Your task to perform on an android device: create a new album in the google photos Image 0: 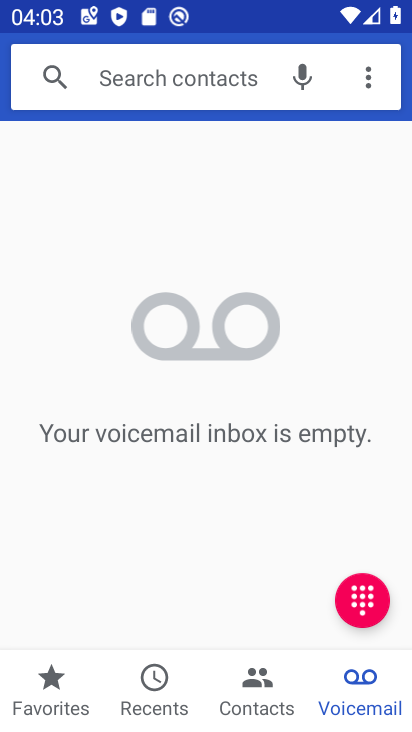
Step 0: press home button
Your task to perform on an android device: create a new album in the google photos Image 1: 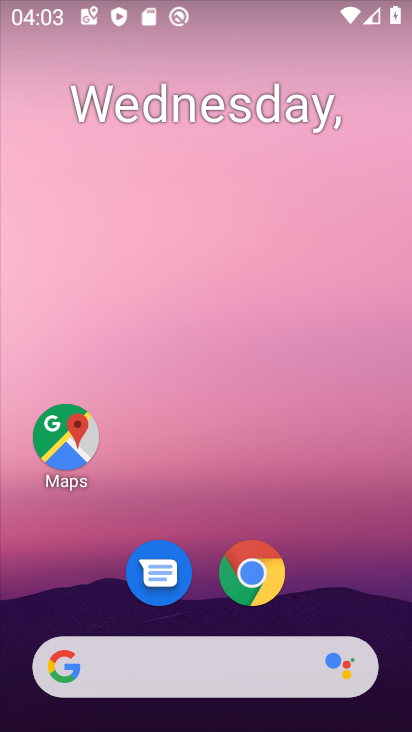
Step 1: drag from (339, 565) to (289, 39)
Your task to perform on an android device: create a new album in the google photos Image 2: 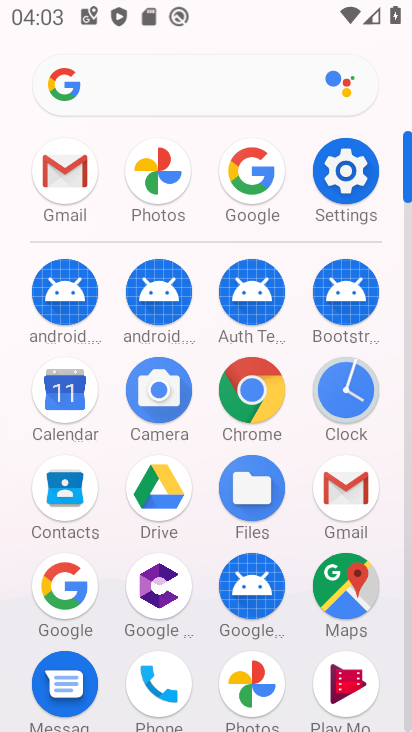
Step 2: click (157, 172)
Your task to perform on an android device: create a new album in the google photos Image 3: 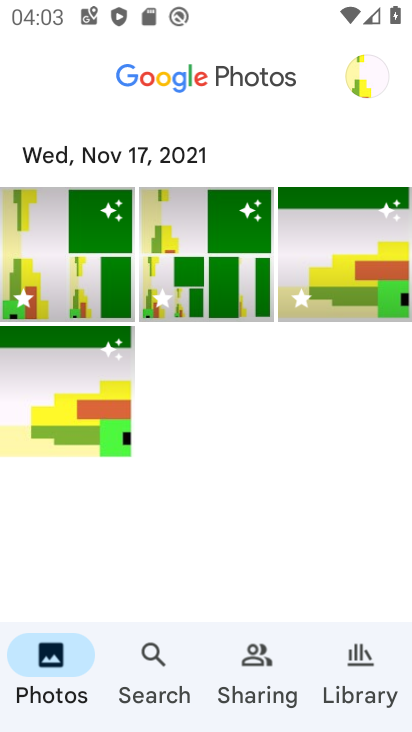
Step 3: click (373, 656)
Your task to perform on an android device: create a new album in the google photos Image 4: 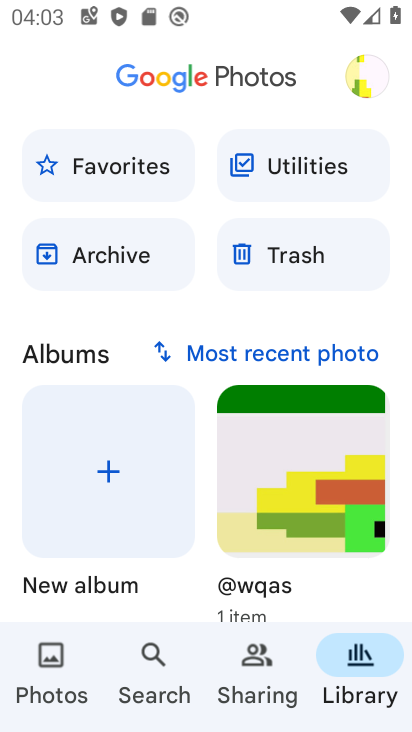
Step 4: click (104, 467)
Your task to perform on an android device: create a new album in the google photos Image 5: 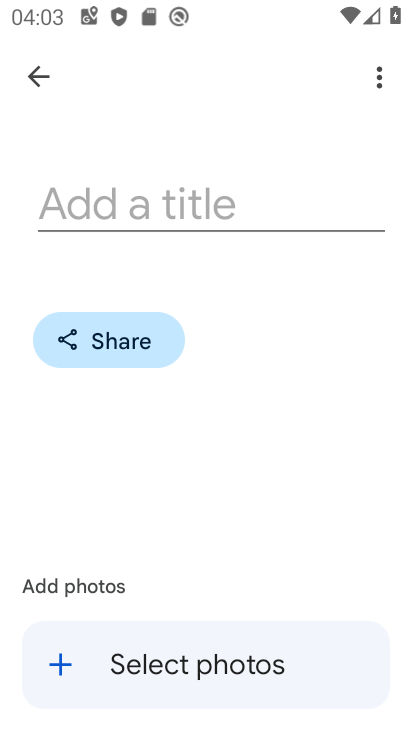
Step 5: click (226, 198)
Your task to perform on an android device: create a new album in the google photos Image 6: 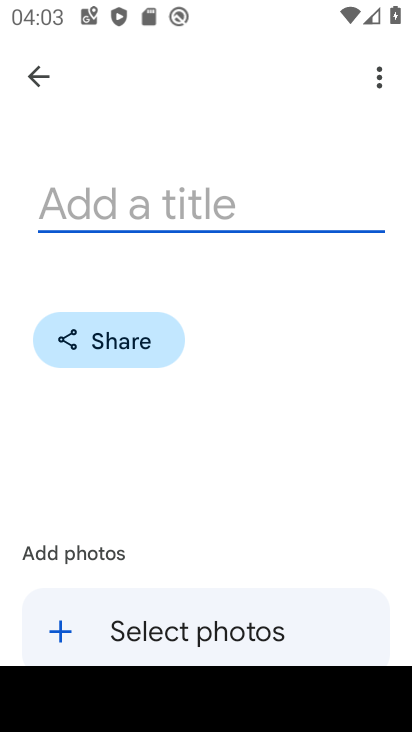
Step 6: type "lilly"
Your task to perform on an android device: create a new album in the google photos Image 7: 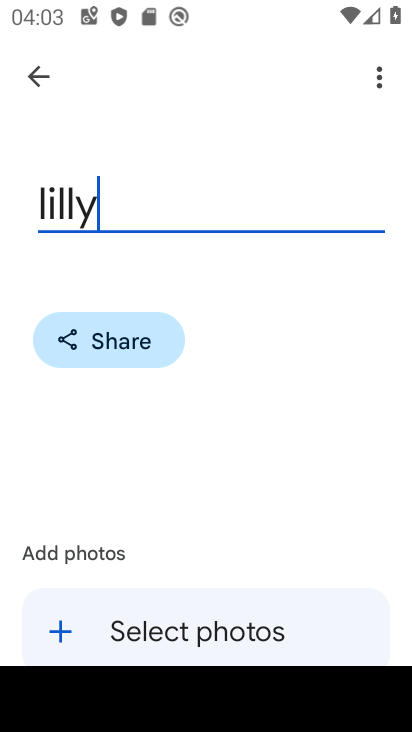
Step 7: type ""
Your task to perform on an android device: create a new album in the google photos Image 8: 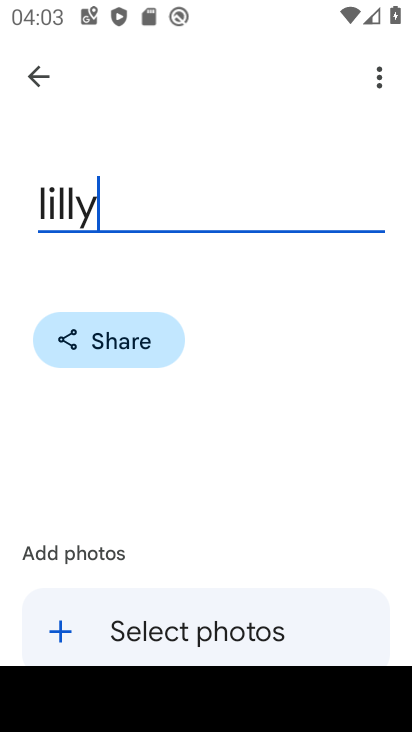
Step 8: click (167, 637)
Your task to perform on an android device: create a new album in the google photos Image 9: 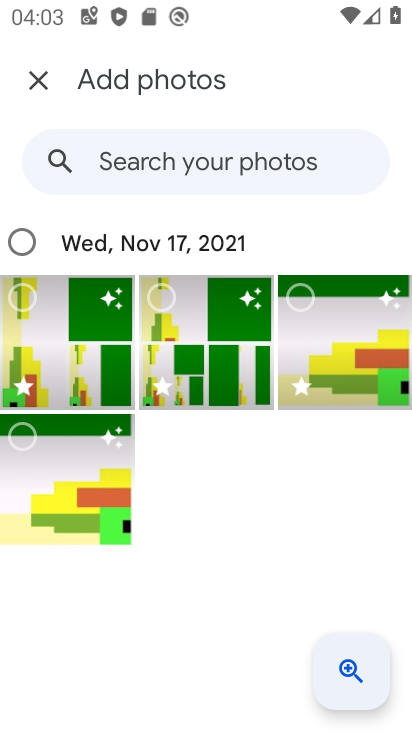
Step 9: click (26, 240)
Your task to perform on an android device: create a new album in the google photos Image 10: 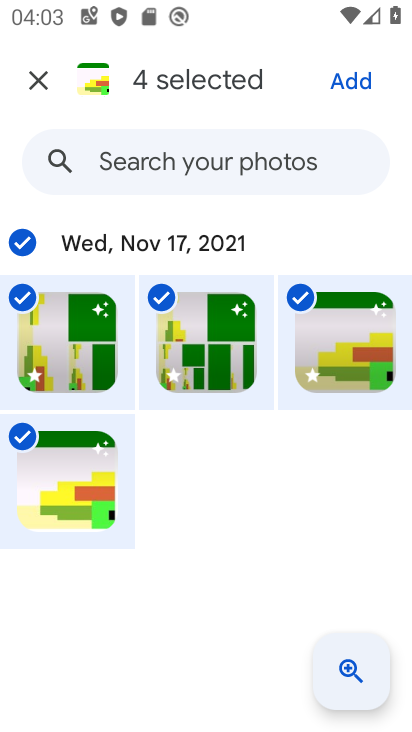
Step 10: click (350, 79)
Your task to perform on an android device: create a new album in the google photos Image 11: 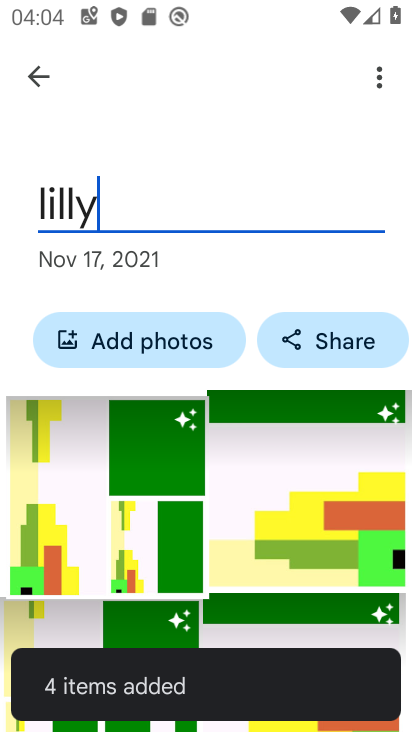
Step 11: task complete